Your task to perform on an android device: change the upload size in google photos Image 0: 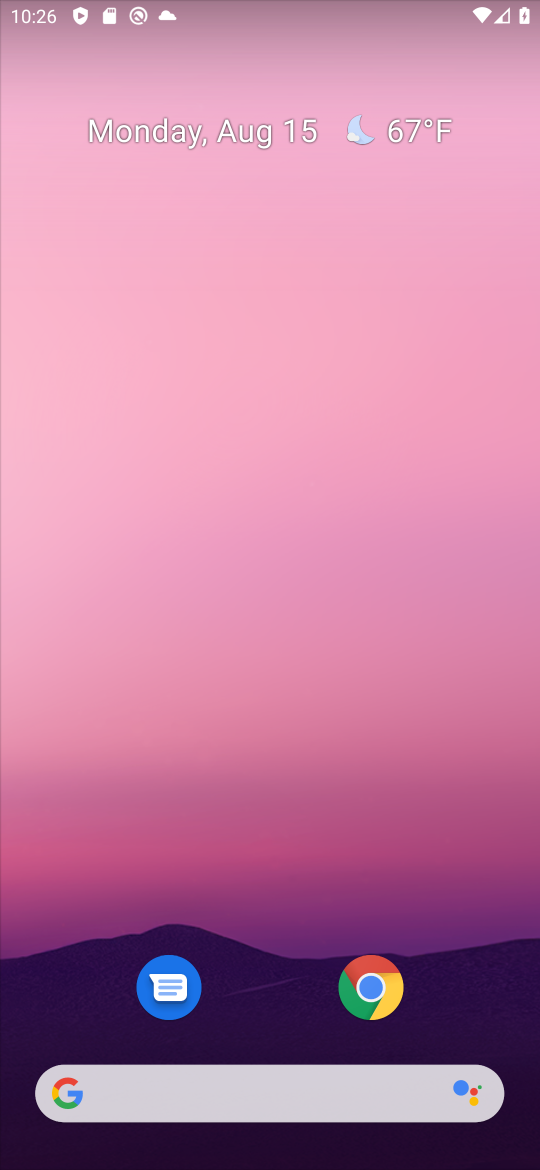
Step 0: drag from (300, 1052) to (383, 961)
Your task to perform on an android device: change the upload size in google photos Image 1: 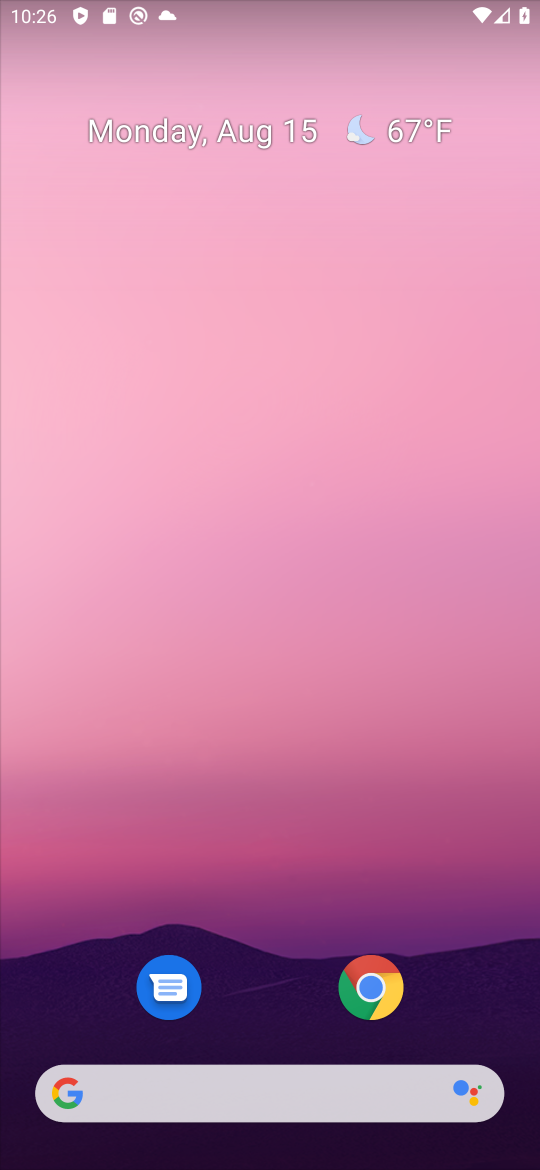
Step 1: drag from (259, 1097) to (171, 137)
Your task to perform on an android device: change the upload size in google photos Image 2: 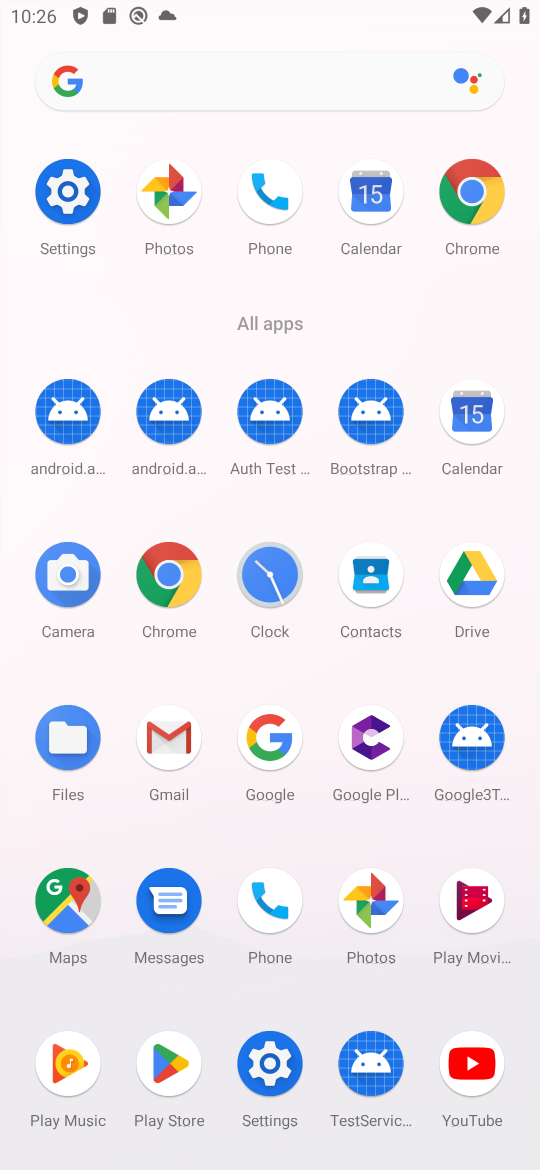
Step 2: click (360, 902)
Your task to perform on an android device: change the upload size in google photos Image 3: 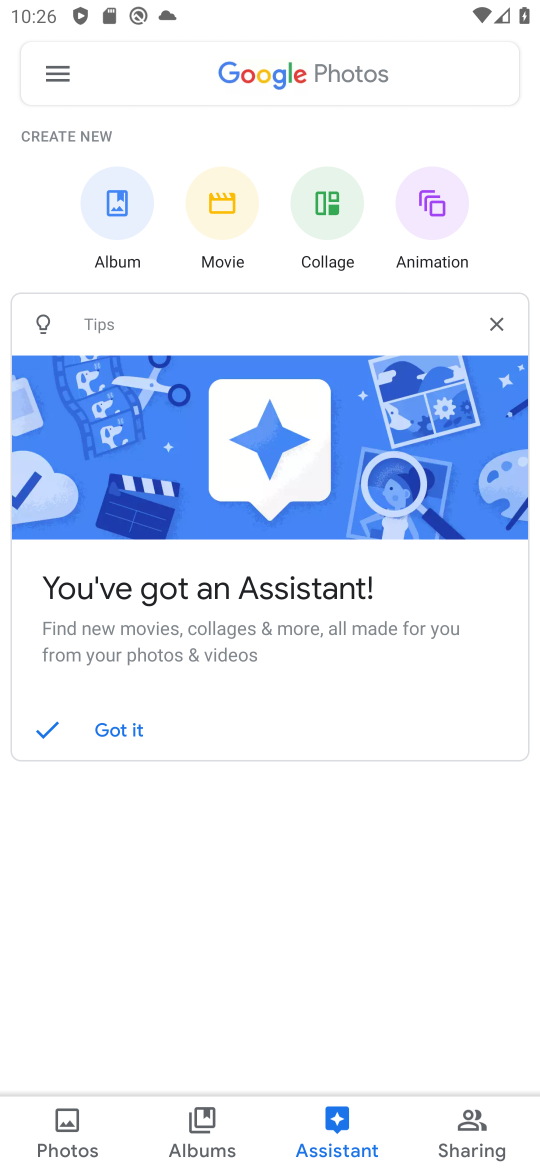
Step 3: click (52, 71)
Your task to perform on an android device: change the upload size in google photos Image 4: 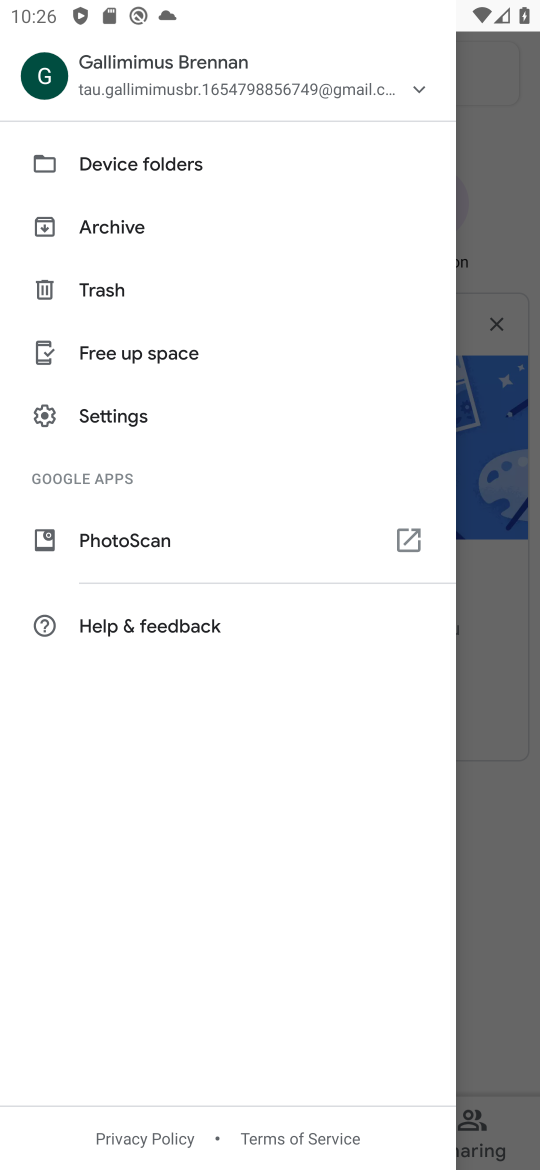
Step 4: click (87, 389)
Your task to perform on an android device: change the upload size in google photos Image 5: 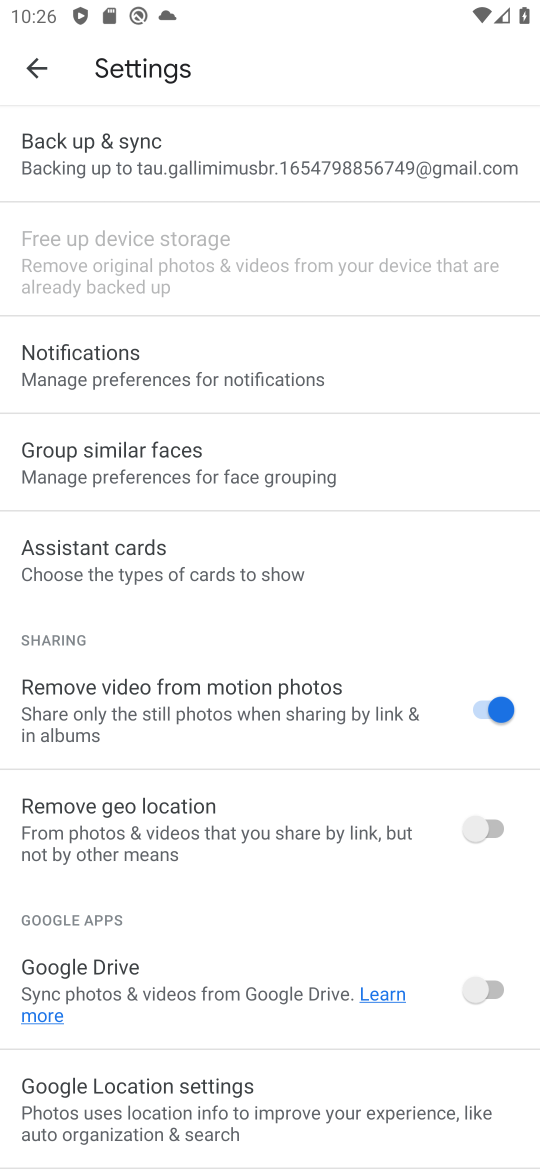
Step 5: click (153, 153)
Your task to perform on an android device: change the upload size in google photos Image 6: 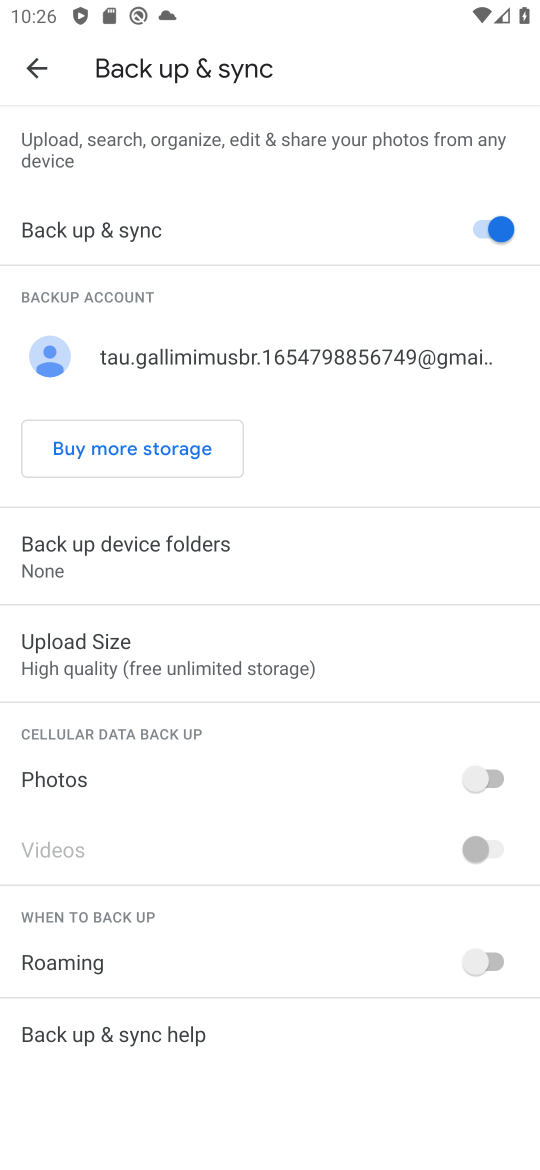
Step 6: click (110, 668)
Your task to perform on an android device: change the upload size in google photos Image 7: 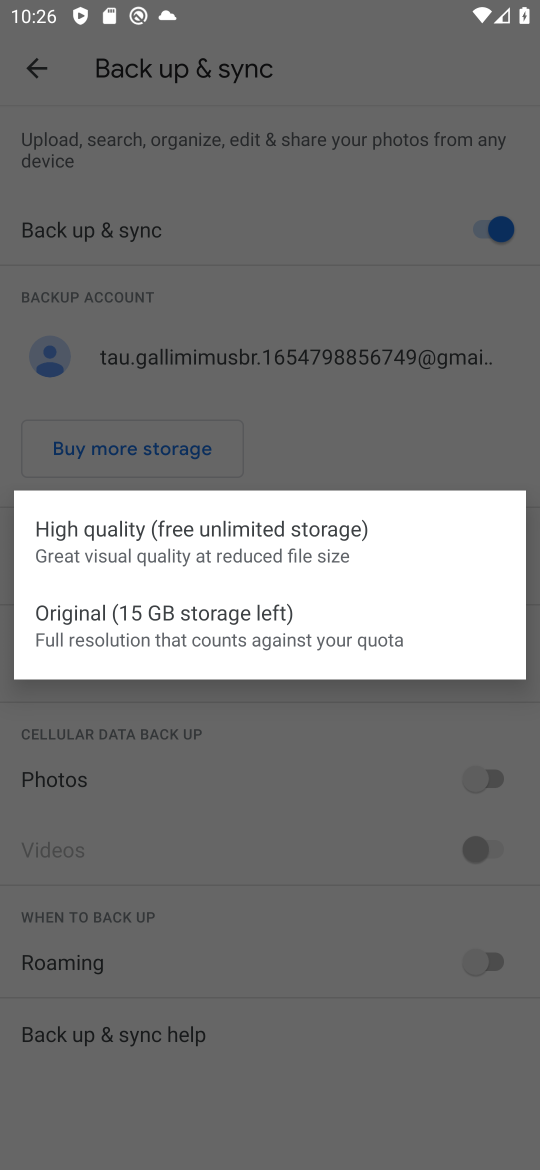
Step 7: click (132, 641)
Your task to perform on an android device: change the upload size in google photos Image 8: 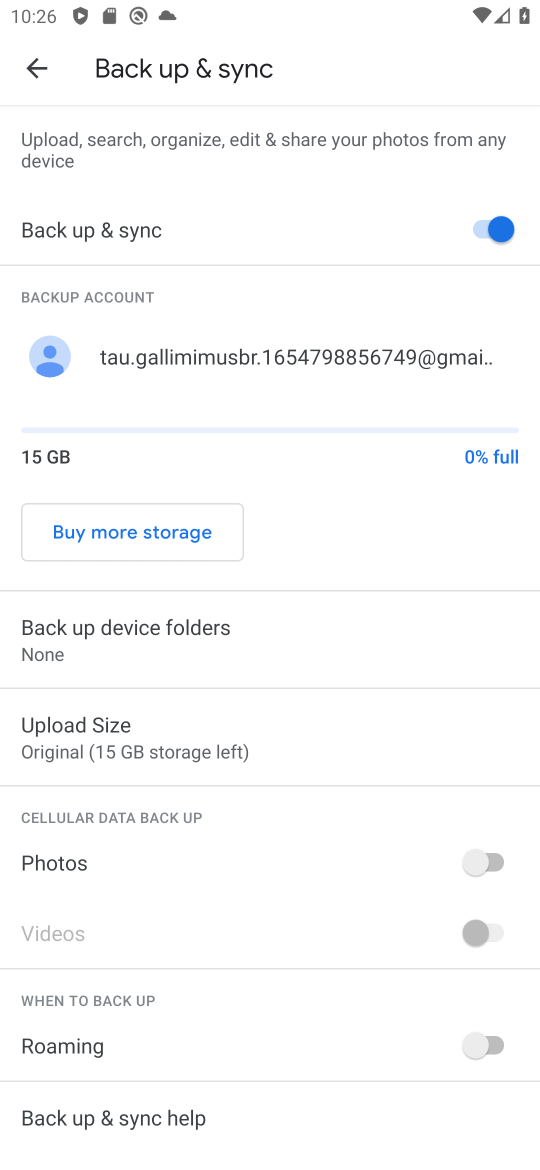
Step 8: task complete